Your task to perform on an android device: turn on priority inbox in the gmail app Image 0: 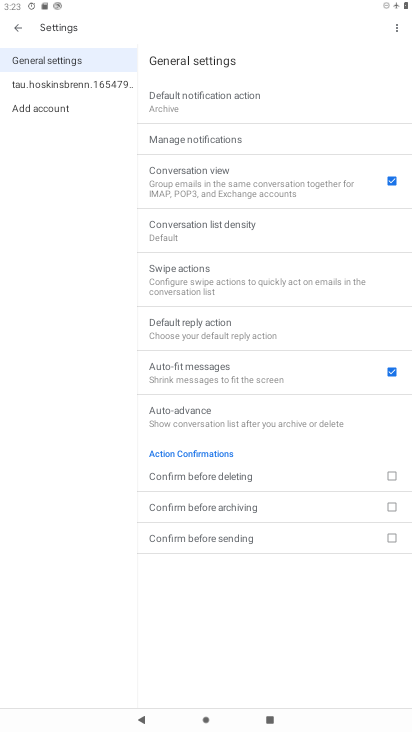
Step 0: press home button
Your task to perform on an android device: turn on priority inbox in the gmail app Image 1: 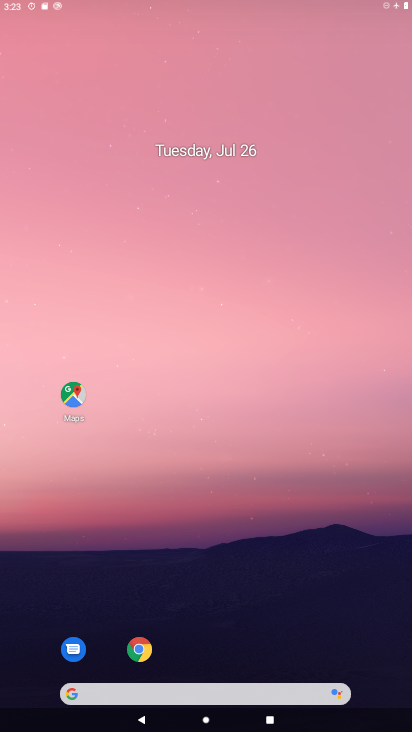
Step 1: click (262, 34)
Your task to perform on an android device: turn on priority inbox in the gmail app Image 2: 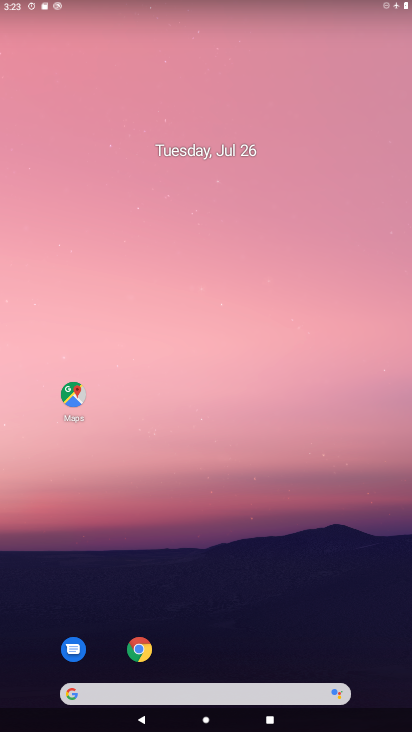
Step 2: drag from (350, 622) to (236, 88)
Your task to perform on an android device: turn on priority inbox in the gmail app Image 3: 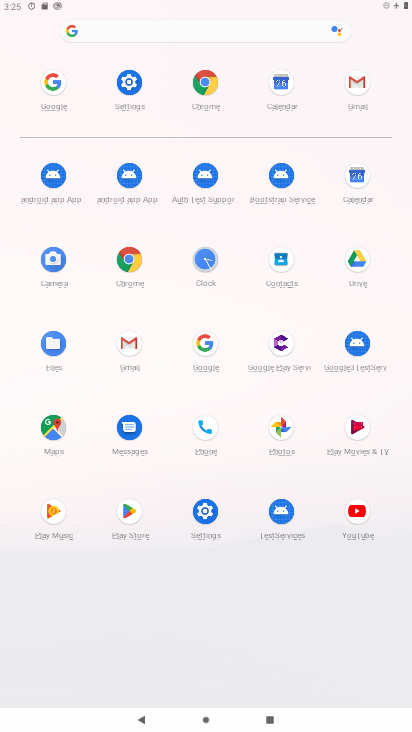
Step 3: click (134, 341)
Your task to perform on an android device: turn on priority inbox in the gmail app Image 4: 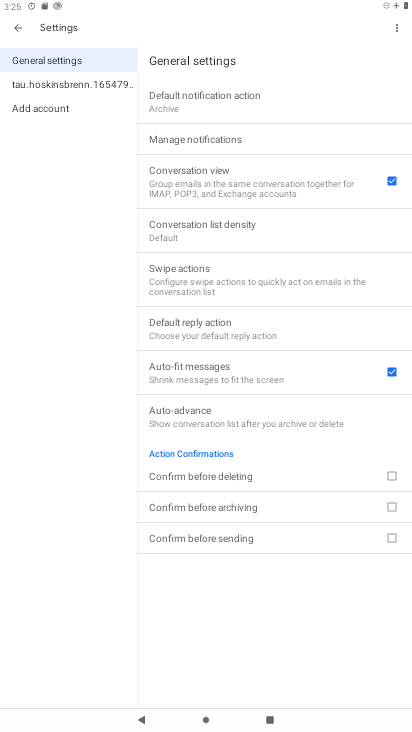
Step 4: click (35, 79)
Your task to perform on an android device: turn on priority inbox in the gmail app Image 5: 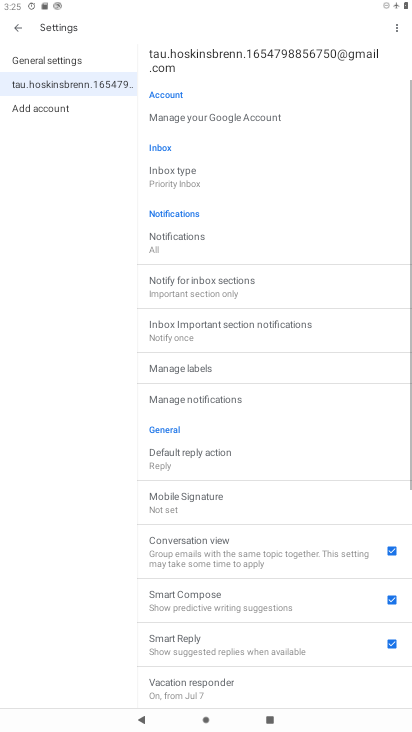
Step 5: click (199, 181)
Your task to perform on an android device: turn on priority inbox in the gmail app Image 6: 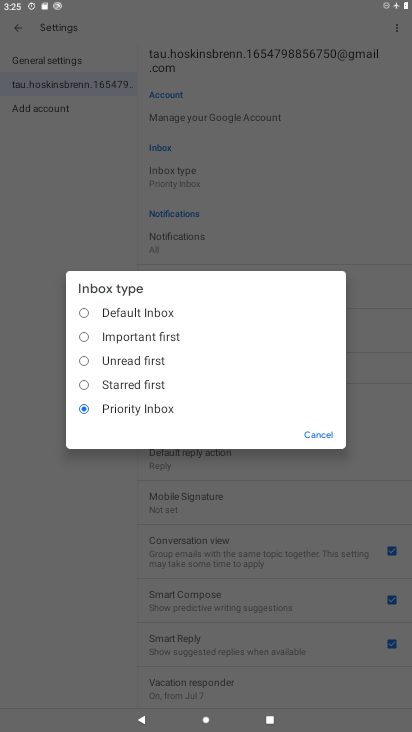
Step 6: task complete